Your task to perform on an android device: Open eBay Image 0: 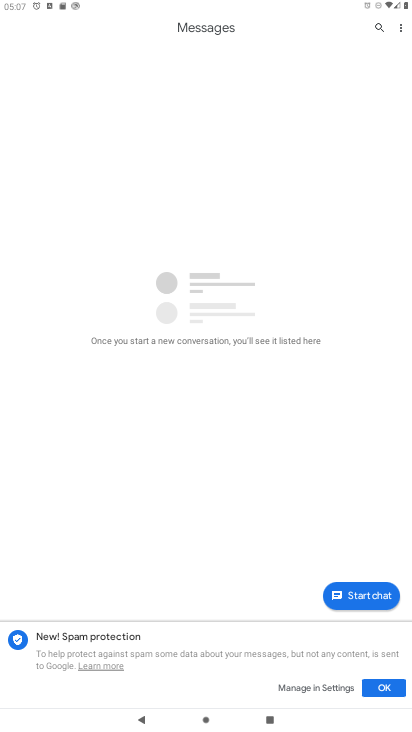
Step 0: press home button
Your task to perform on an android device: Open eBay Image 1: 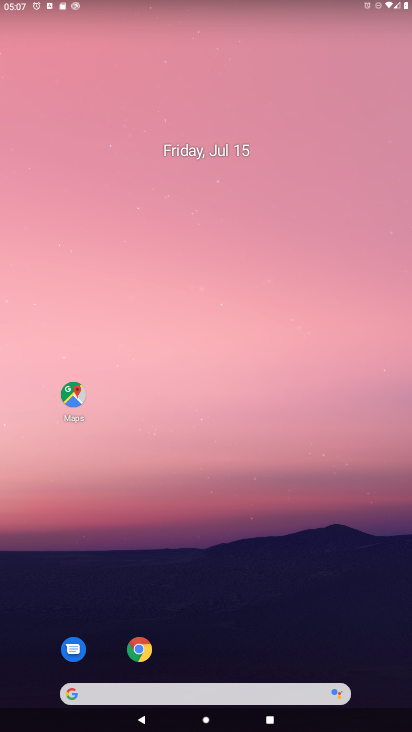
Step 1: click (141, 650)
Your task to perform on an android device: Open eBay Image 2: 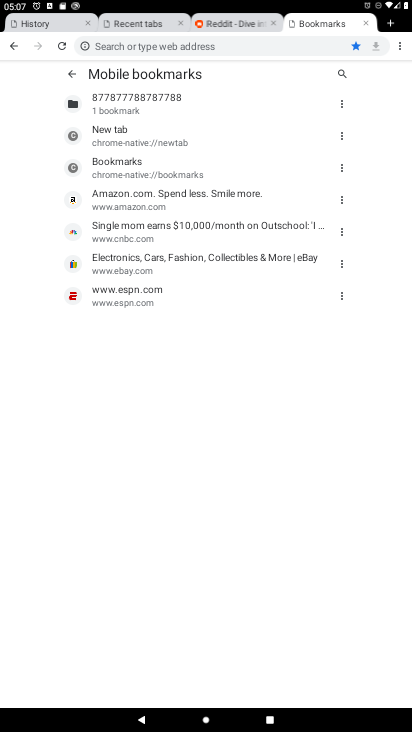
Step 2: click (178, 40)
Your task to perform on an android device: Open eBay Image 3: 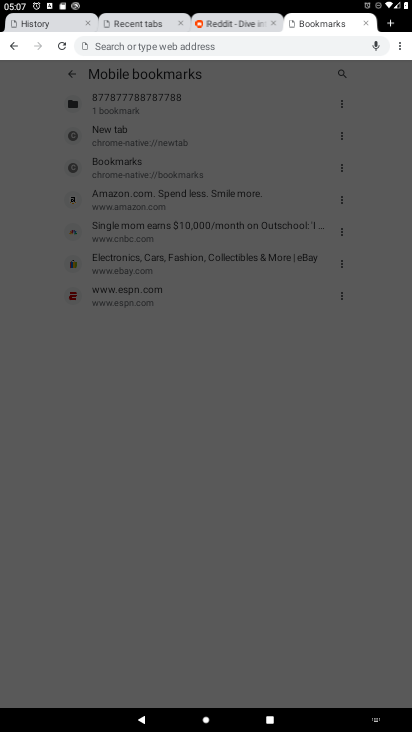
Step 3: type "eBay"
Your task to perform on an android device: Open eBay Image 4: 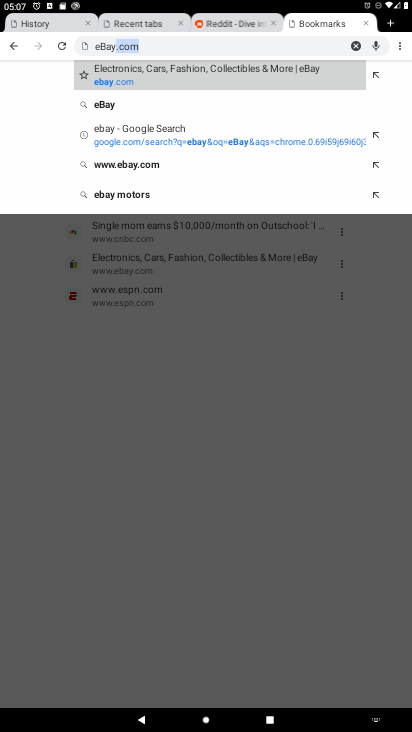
Step 4: click (123, 72)
Your task to perform on an android device: Open eBay Image 5: 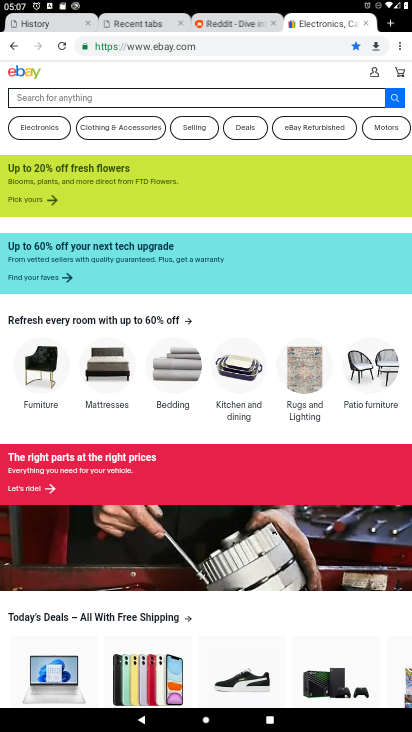
Step 5: task complete